Your task to perform on an android device: see sites visited before in the chrome app Image 0: 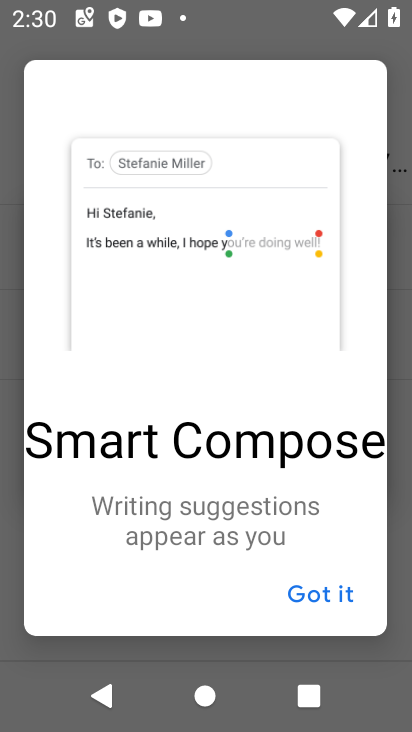
Step 0: press home button
Your task to perform on an android device: see sites visited before in the chrome app Image 1: 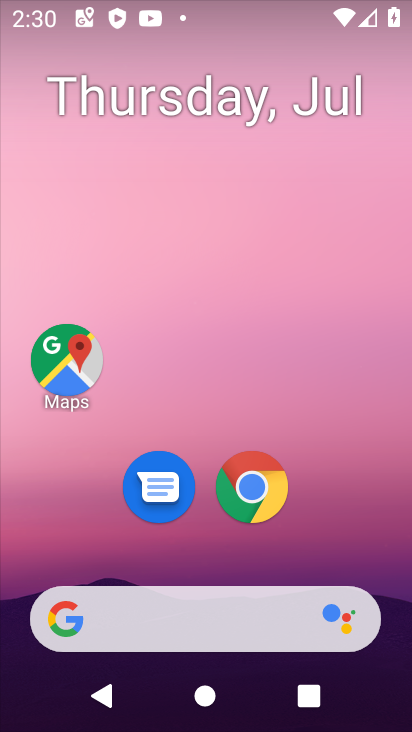
Step 1: drag from (337, 551) to (370, 211)
Your task to perform on an android device: see sites visited before in the chrome app Image 2: 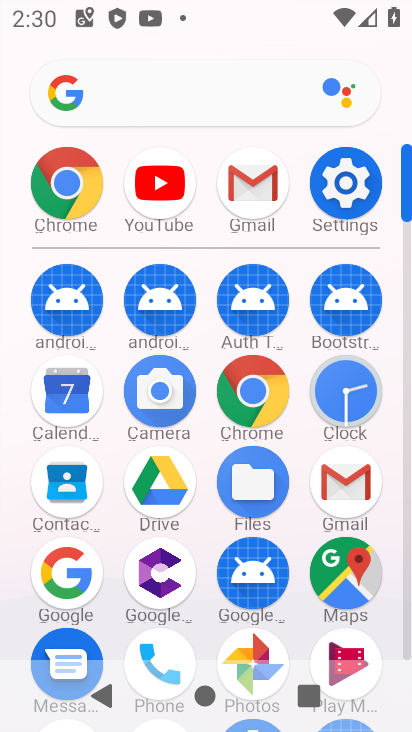
Step 2: click (260, 403)
Your task to perform on an android device: see sites visited before in the chrome app Image 3: 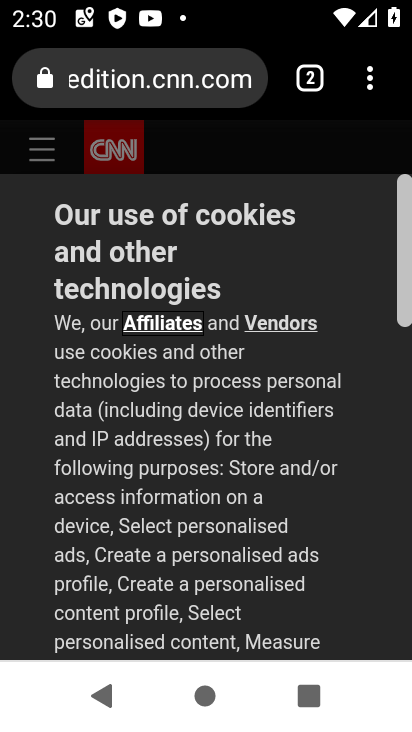
Step 3: click (370, 84)
Your task to perform on an android device: see sites visited before in the chrome app Image 4: 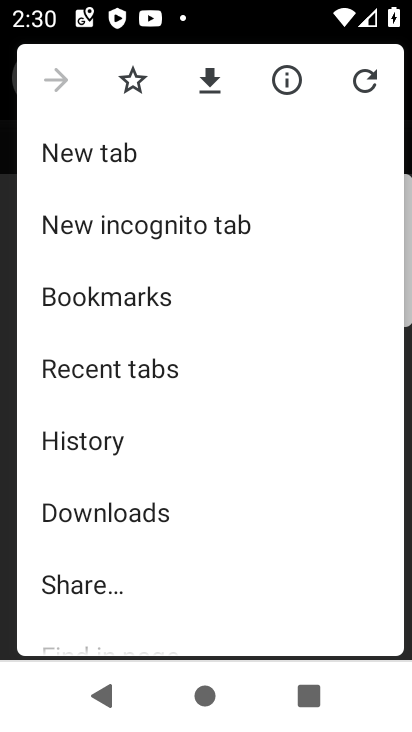
Step 4: drag from (291, 464) to (298, 337)
Your task to perform on an android device: see sites visited before in the chrome app Image 5: 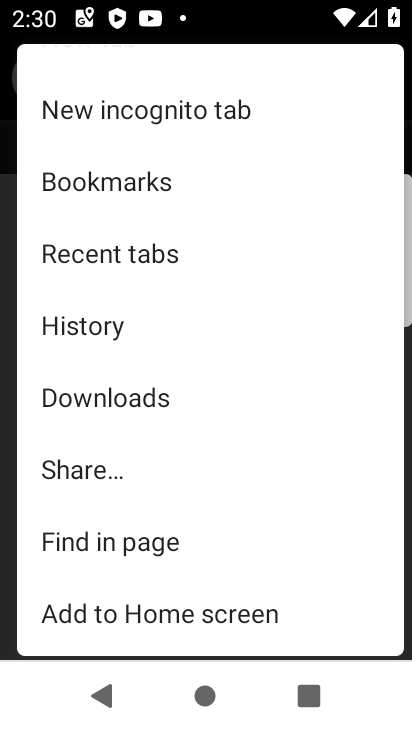
Step 5: drag from (299, 449) to (303, 402)
Your task to perform on an android device: see sites visited before in the chrome app Image 6: 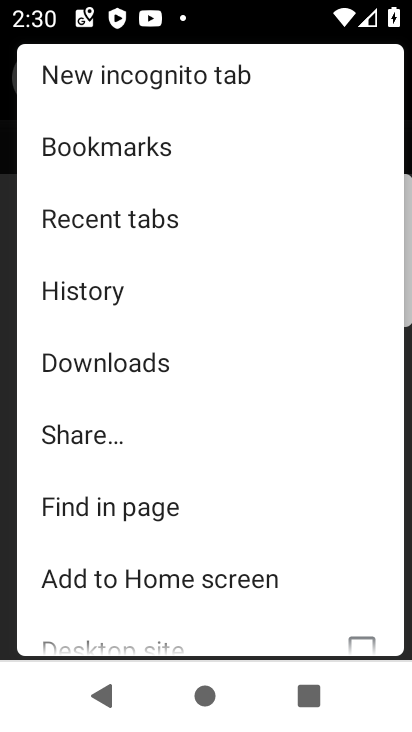
Step 6: click (153, 294)
Your task to perform on an android device: see sites visited before in the chrome app Image 7: 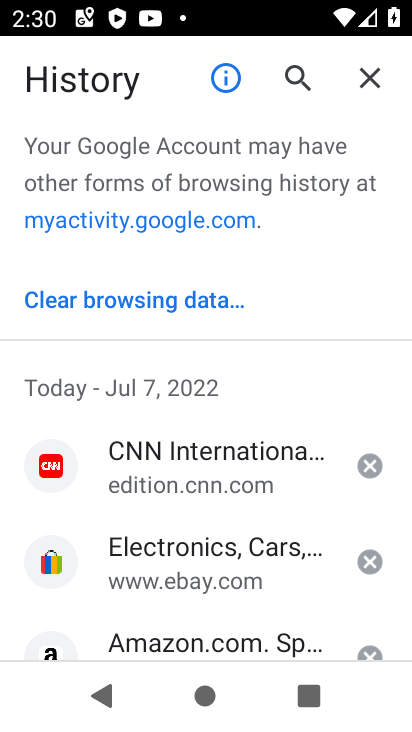
Step 7: task complete